Your task to perform on an android device: Open the map Image 0: 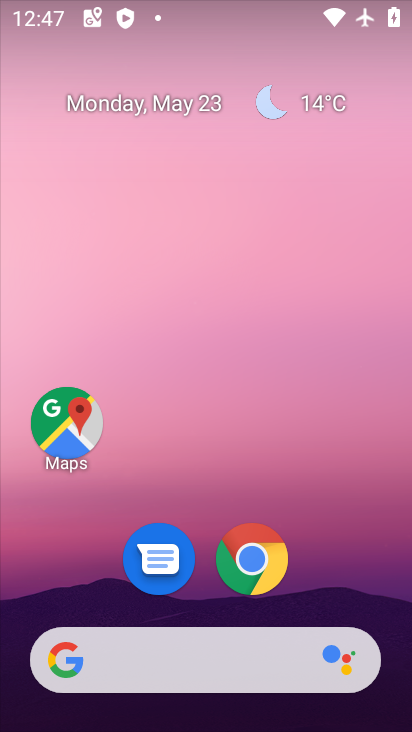
Step 0: click (65, 429)
Your task to perform on an android device: Open the map Image 1: 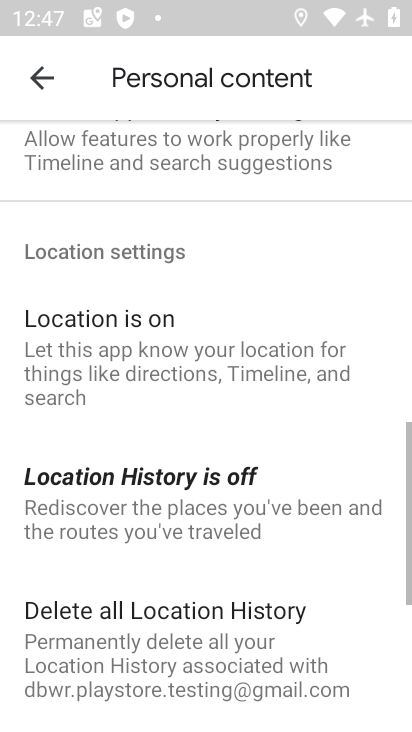
Step 1: click (44, 81)
Your task to perform on an android device: Open the map Image 2: 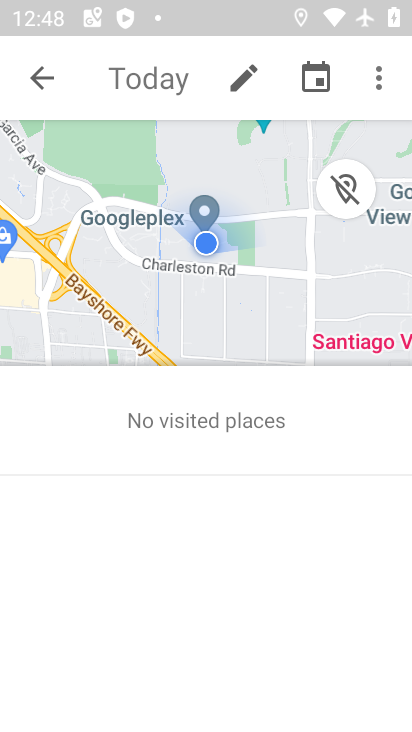
Step 2: click (46, 88)
Your task to perform on an android device: Open the map Image 3: 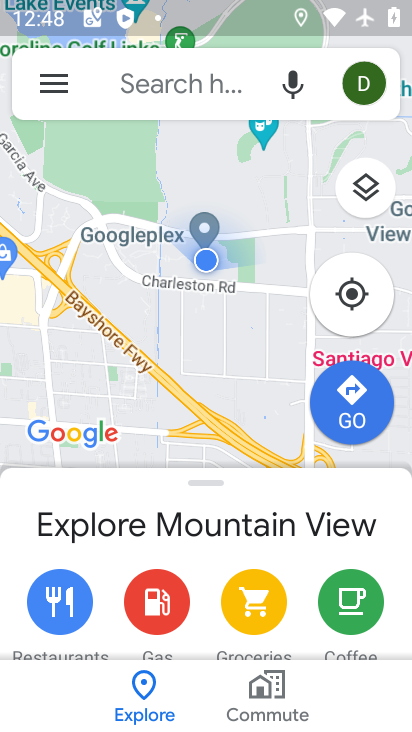
Step 3: task complete